Your task to perform on an android device: change the clock display to show seconds Image 0: 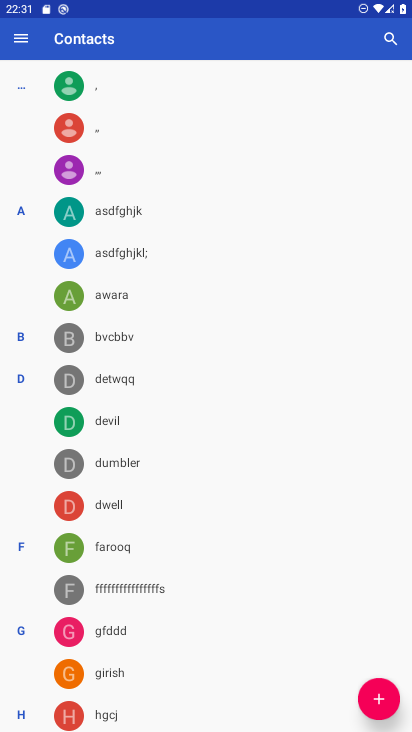
Step 0: press home button
Your task to perform on an android device: change the clock display to show seconds Image 1: 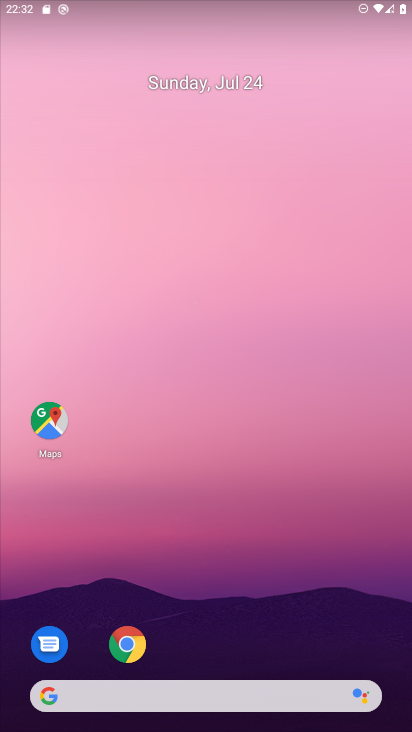
Step 1: click (351, 60)
Your task to perform on an android device: change the clock display to show seconds Image 2: 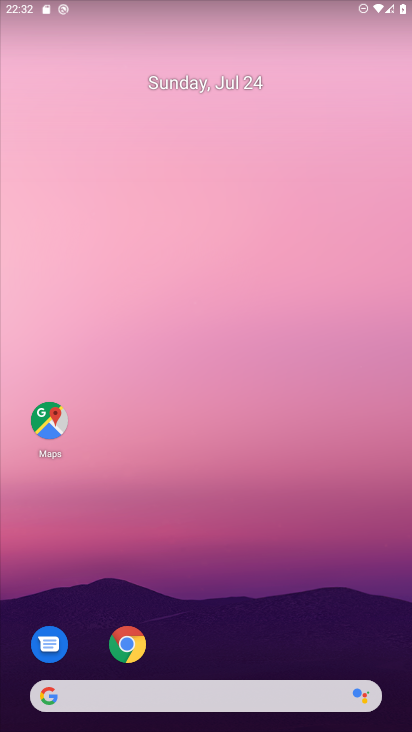
Step 2: drag from (341, 650) to (334, 60)
Your task to perform on an android device: change the clock display to show seconds Image 3: 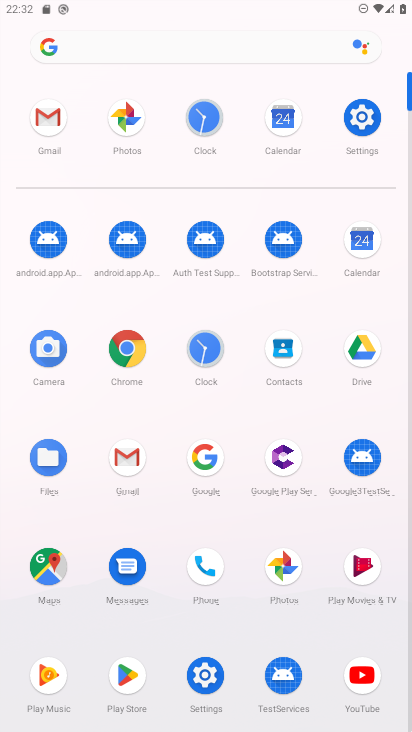
Step 3: click (206, 346)
Your task to perform on an android device: change the clock display to show seconds Image 4: 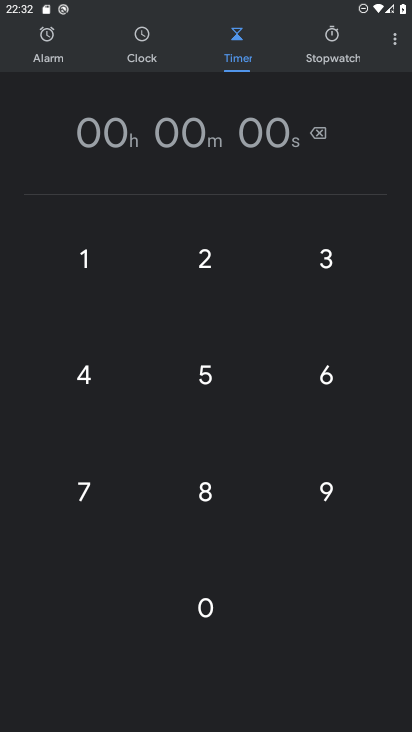
Step 4: click (394, 49)
Your task to perform on an android device: change the clock display to show seconds Image 5: 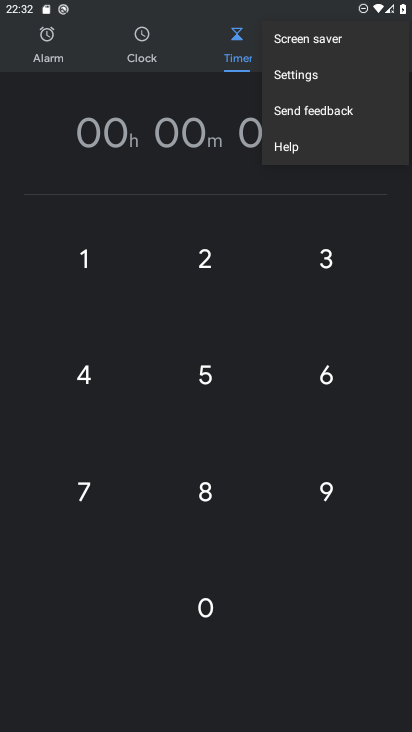
Step 5: click (290, 78)
Your task to perform on an android device: change the clock display to show seconds Image 6: 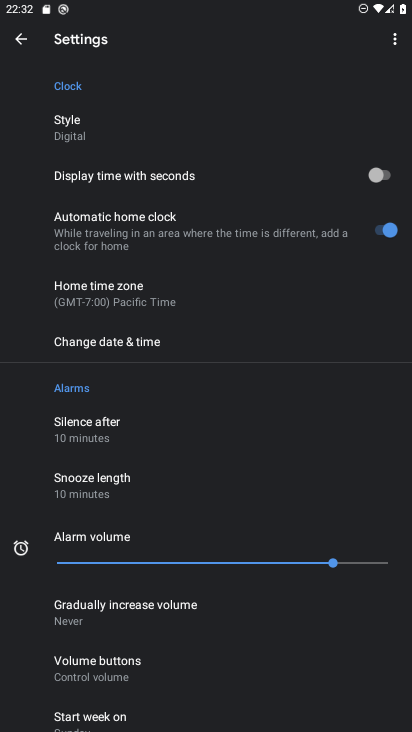
Step 6: click (385, 178)
Your task to perform on an android device: change the clock display to show seconds Image 7: 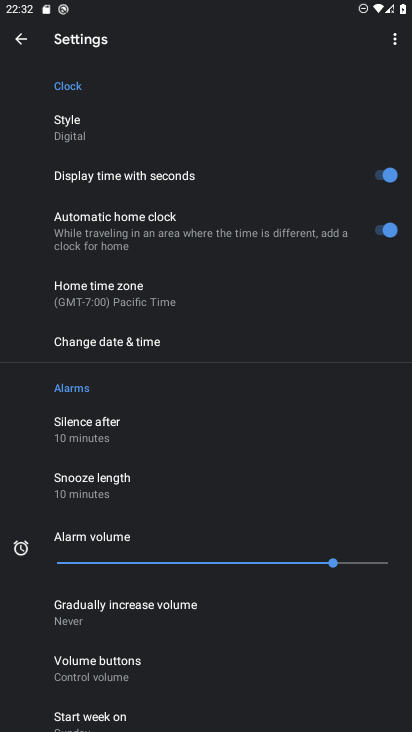
Step 7: task complete